Your task to perform on an android device: change alarm snooze length Image 0: 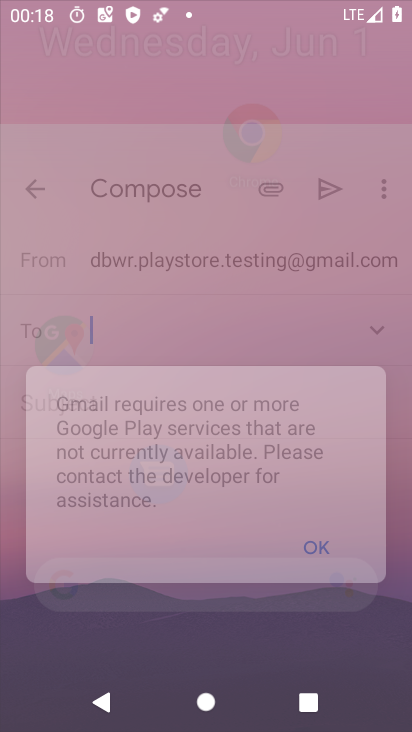
Step 0: drag from (224, 41) to (270, 20)
Your task to perform on an android device: change alarm snooze length Image 1: 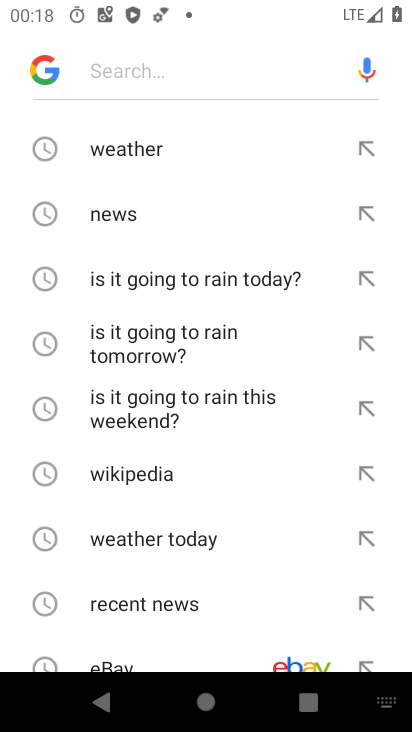
Step 1: press home button
Your task to perform on an android device: change alarm snooze length Image 2: 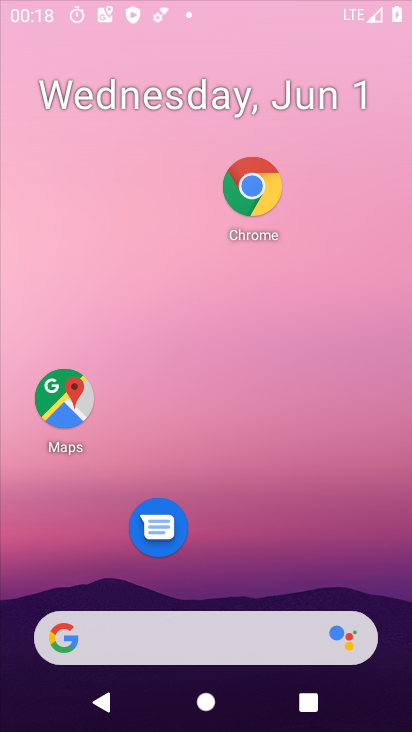
Step 2: drag from (207, 347) to (246, 17)
Your task to perform on an android device: change alarm snooze length Image 3: 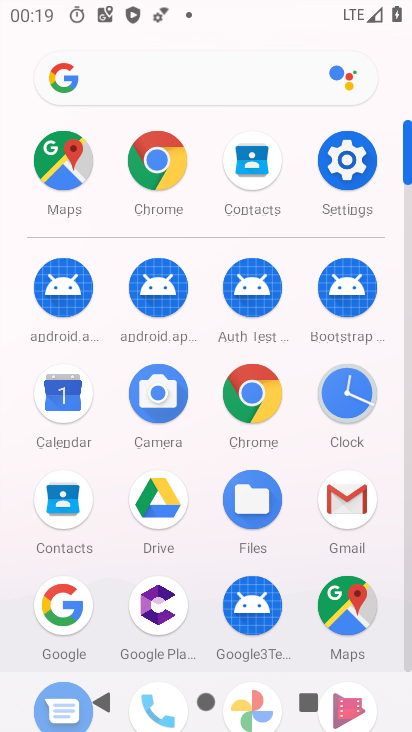
Step 3: click (339, 402)
Your task to perform on an android device: change alarm snooze length Image 4: 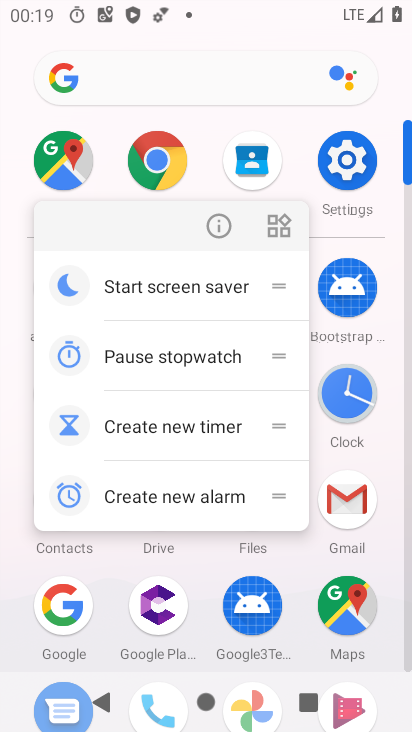
Step 4: click (209, 219)
Your task to perform on an android device: change alarm snooze length Image 5: 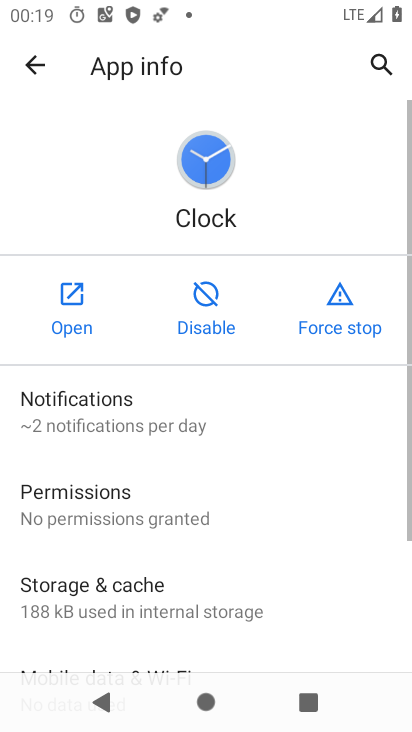
Step 5: click (52, 316)
Your task to perform on an android device: change alarm snooze length Image 6: 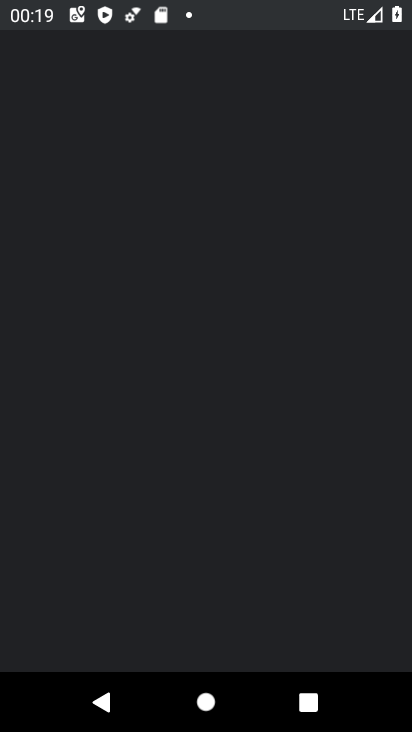
Step 6: drag from (192, 507) to (224, 187)
Your task to perform on an android device: change alarm snooze length Image 7: 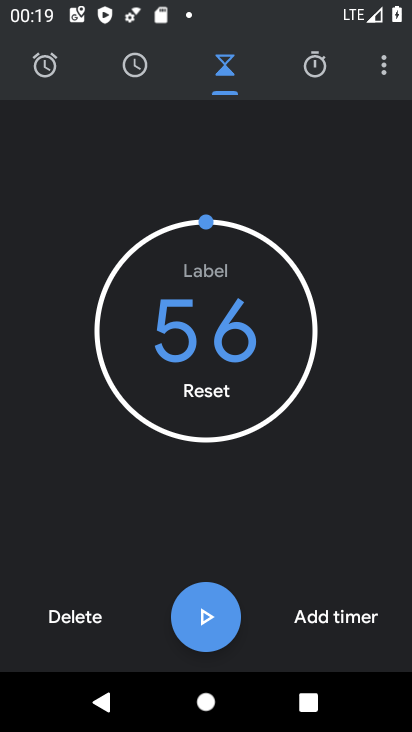
Step 7: drag from (184, 142) to (285, 534)
Your task to perform on an android device: change alarm snooze length Image 8: 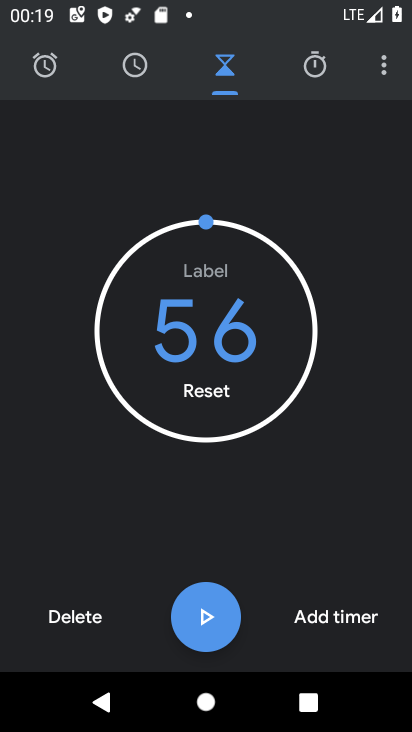
Step 8: click (65, 631)
Your task to perform on an android device: change alarm snooze length Image 9: 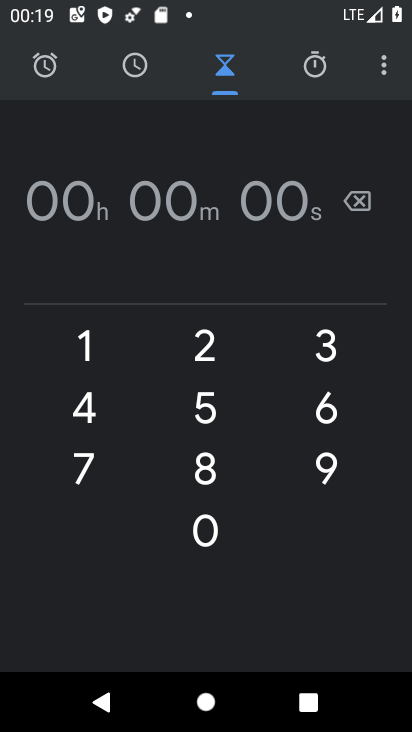
Step 9: click (386, 78)
Your task to perform on an android device: change alarm snooze length Image 10: 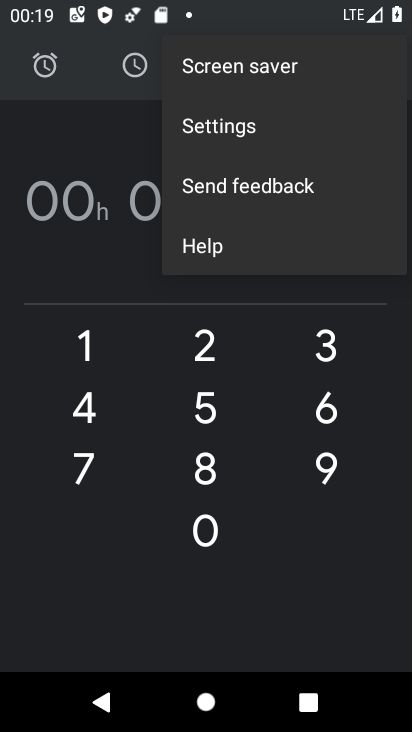
Step 10: click (244, 106)
Your task to perform on an android device: change alarm snooze length Image 11: 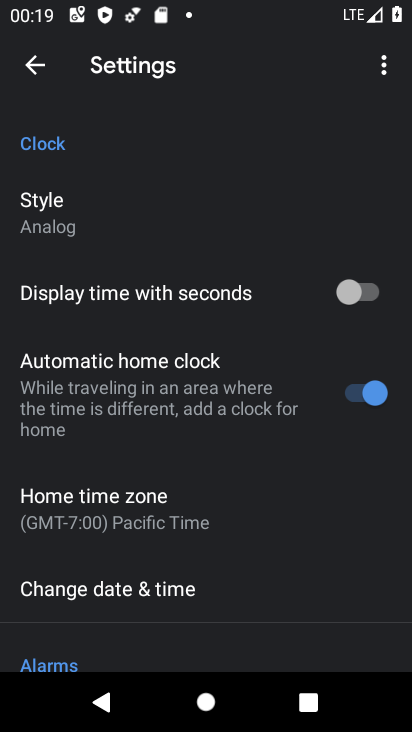
Step 11: drag from (143, 566) to (233, 88)
Your task to perform on an android device: change alarm snooze length Image 12: 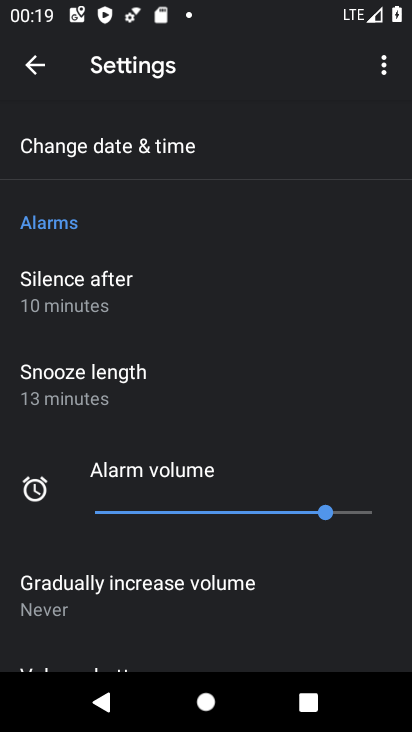
Step 12: drag from (168, 571) to (224, 242)
Your task to perform on an android device: change alarm snooze length Image 13: 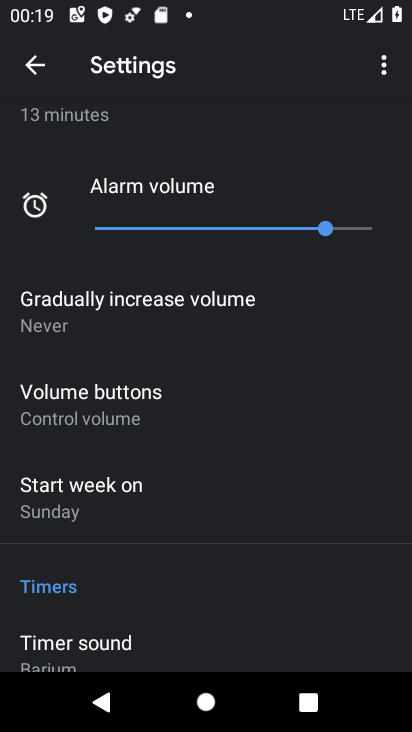
Step 13: drag from (136, 192) to (235, 528)
Your task to perform on an android device: change alarm snooze length Image 14: 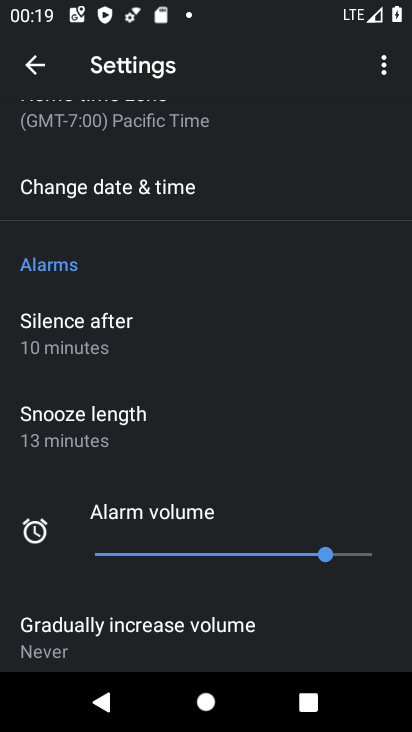
Step 14: click (148, 409)
Your task to perform on an android device: change alarm snooze length Image 15: 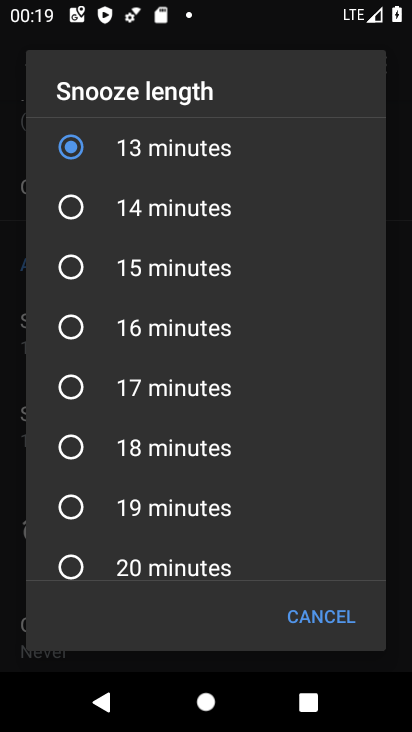
Step 15: click (84, 322)
Your task to perform on an android device: change alarm snooze length Image 16: 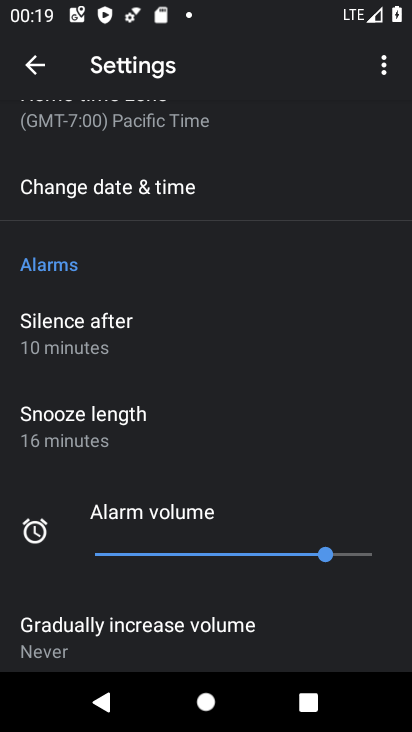
Step 16: task complete